Your task to perform on an android device: check battery use Image 0: 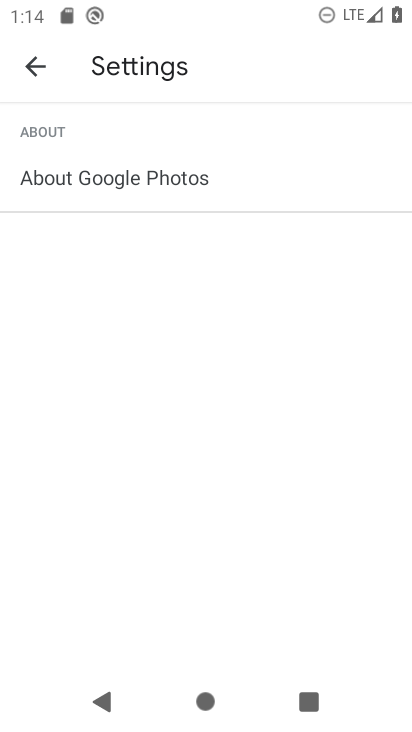
Step 0: press home button
Your task to perform on an android device: check battery use Image 1: 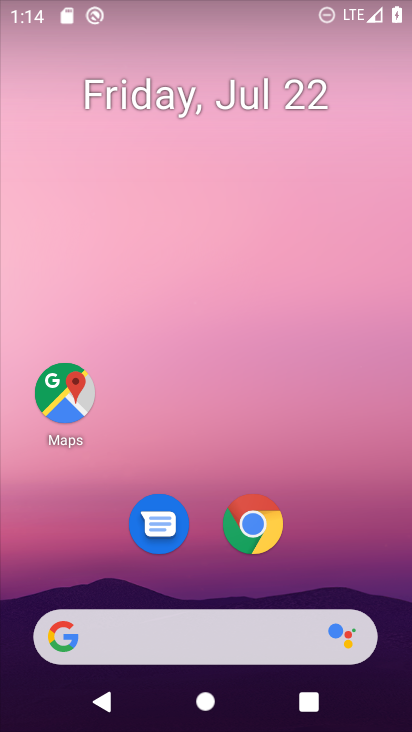
Step 1: drag from (300, 547) to (349, 70)
Your task to perform on an android device: check battery use Image 2: 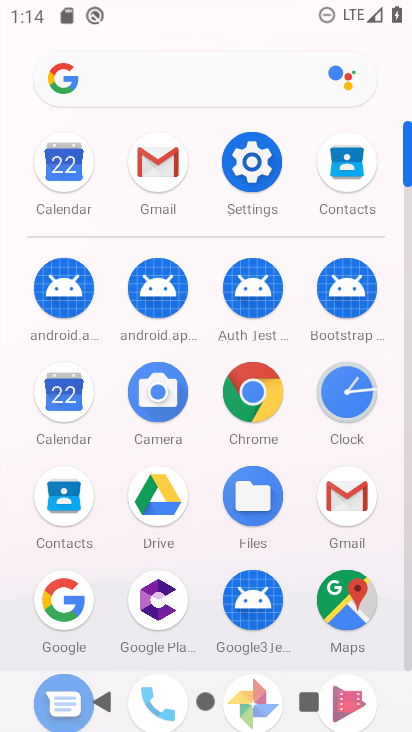
Step 2: click (260, 154)
Your task to perform on an android device: check battery use Image 3: 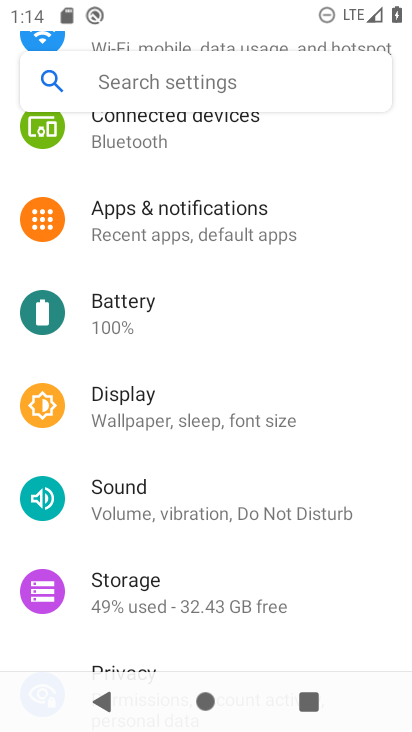
Step 3: click (142, 307)
Your task to perform on an android device: check battery use Image 4: 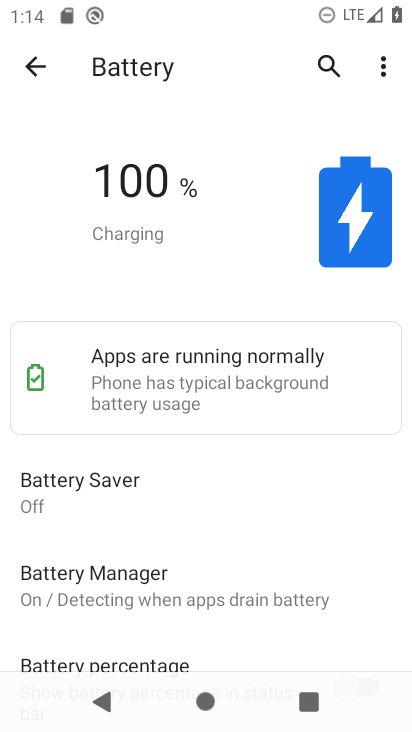
Step 4: click (377, 79)
Your task to perform on an android device: check battery use Image 5: 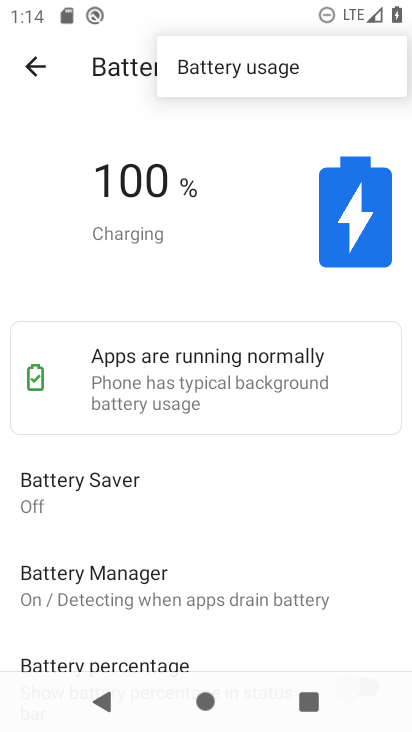
Step 5: click (278, 67)
Your task to perform on an android device: check battery use Image 6: 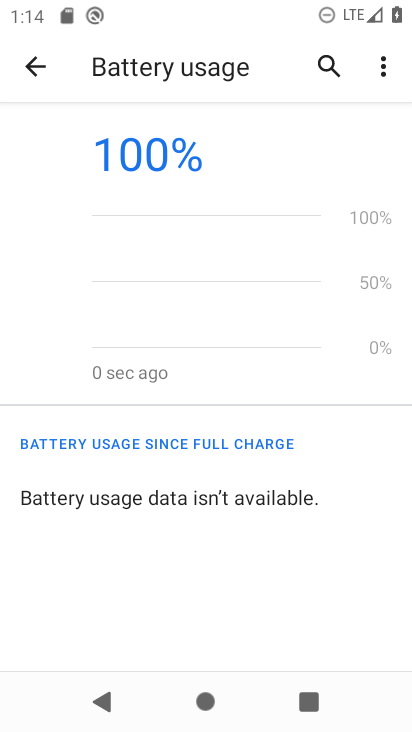
Step 6: task complete